Your task to perform on an android device: toggle notification dots Image 0: 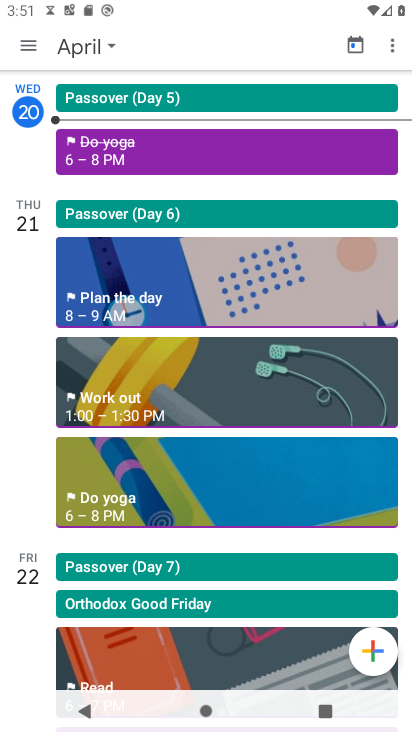
Step 0: press home button
Your task to perform on an android device: toggle notification dots Image 1: 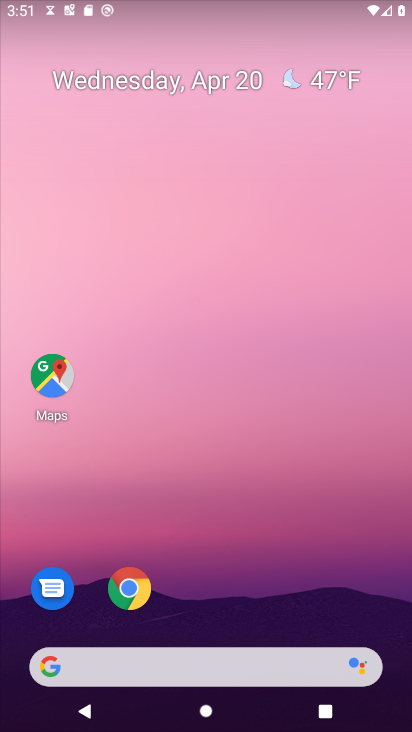
Step 1: drag from (300, 537) to (306, 18)
Your task to perform on an android device: toggle notification dots Image 2: 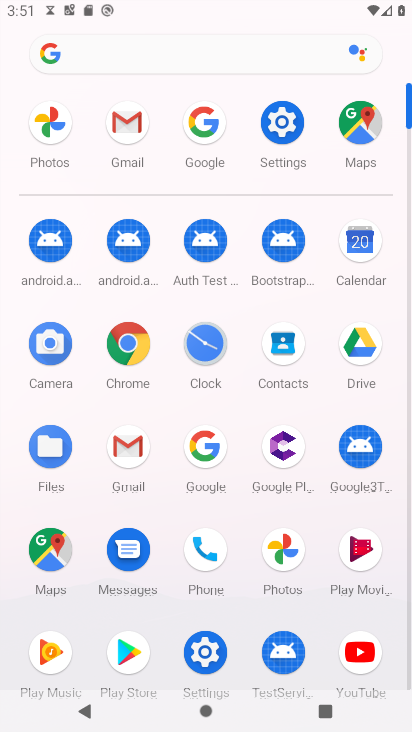
Step 2: click (275, 130)
Your task to perform on an android device: toggle notification dots Image 3: 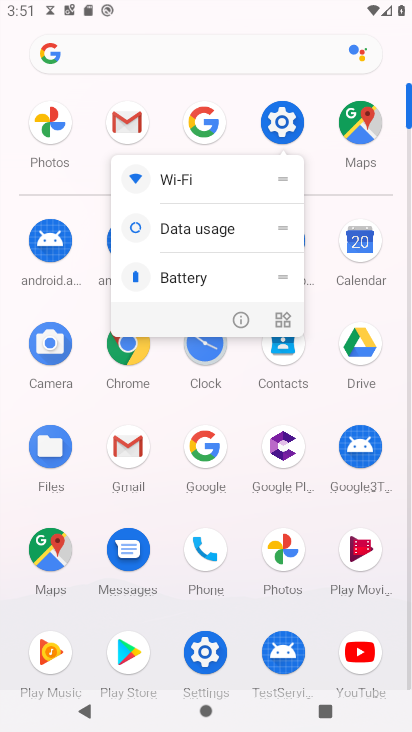
Step 3: click (275, 130)
Your task to perform on an android device: toggle notification dots Image 4: 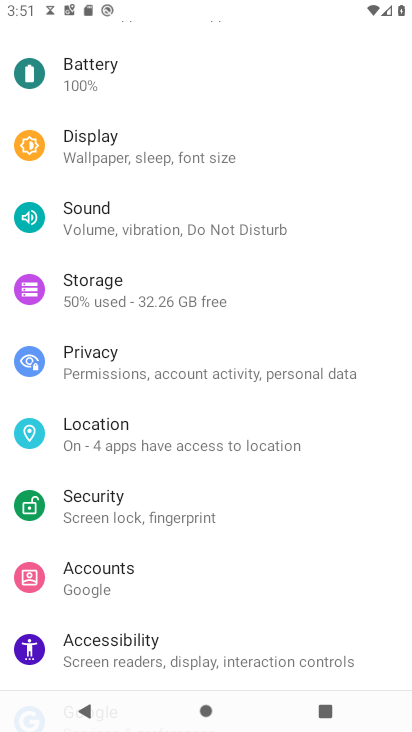
Step 4: drag from (132, 201) to (154, 291)
Your task to perform on an android device: toggle notification dots Image 5: 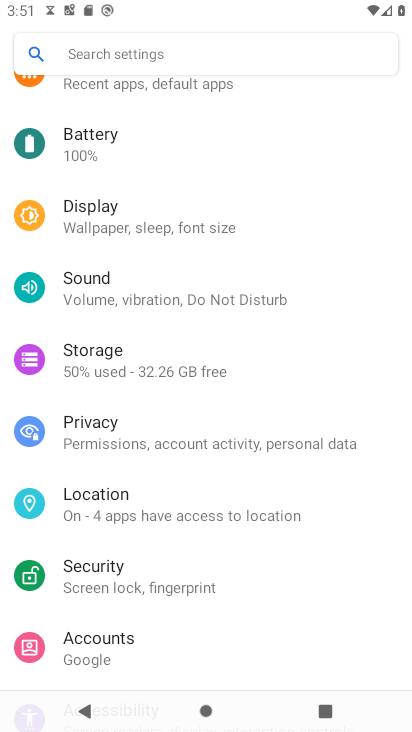
Step 5: drag from (136, 215) to (170, 332)
Your task to perform on an android device: toggle notification dots Image 6: 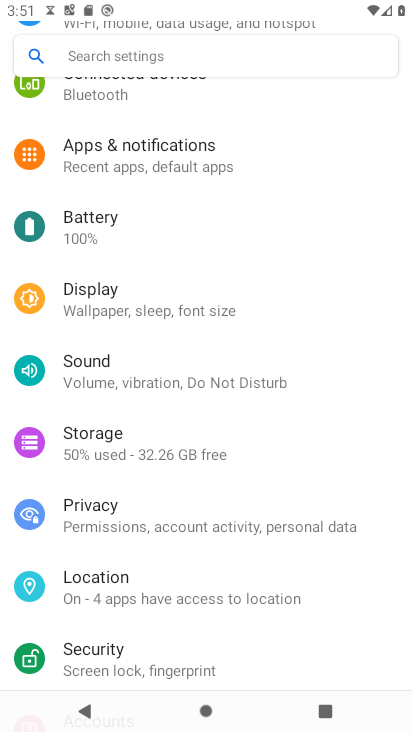
Step 6: click (163, 165)
Your task to perform on an android device: toggle notification dots Image 7: 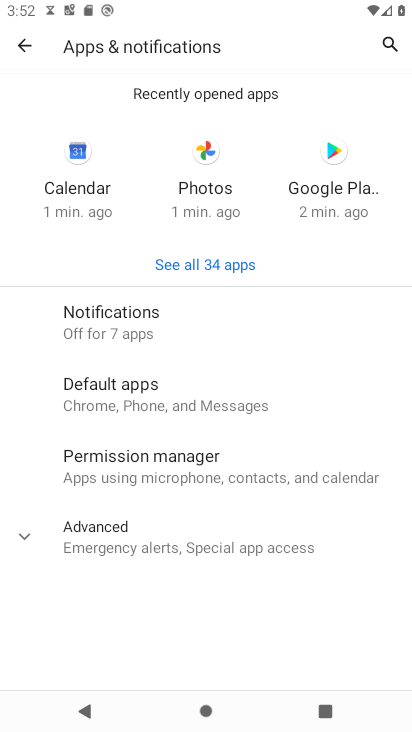
Step 7: click (165, 324)
Your task to perform on an android device: toggle notification dots Image 8: 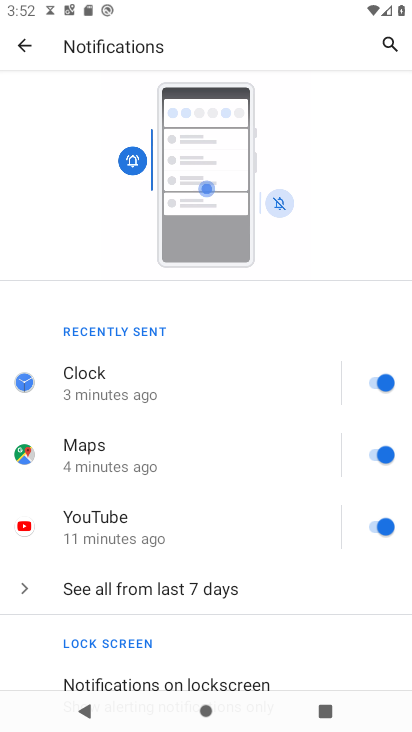
Step 8: drag from (209, 576) to (254, 334)
Your task to perform on an android device: toggle notification dots Image 9: 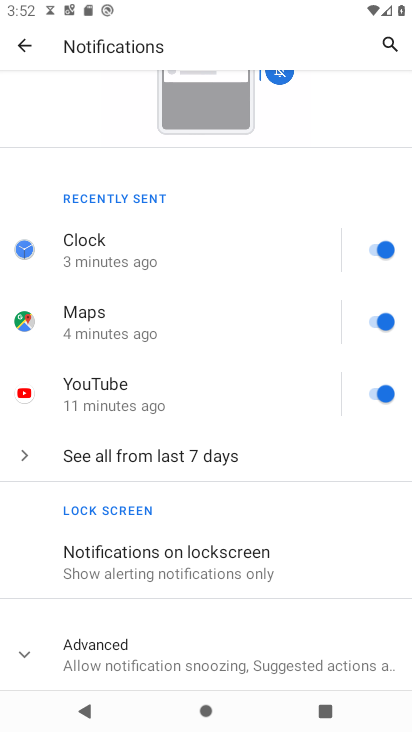
Step 9: drag from (227, 487) to (237, 336)
Your task to perform on an android device: toggle notification dots Image 10: 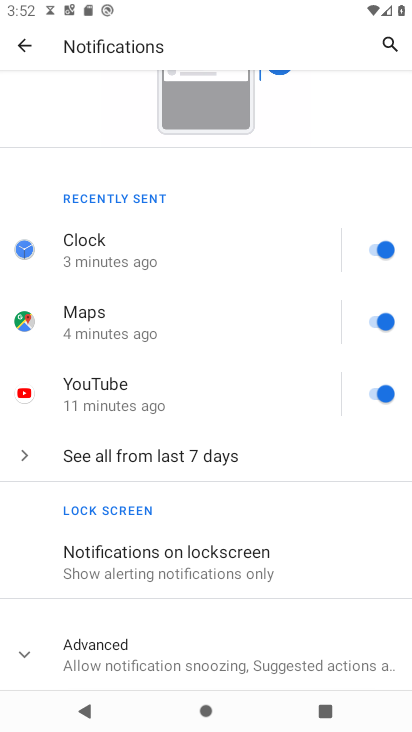
Step 10: click (148, 655)
Your task to perform on an android device: toggle notification dots Image 11: 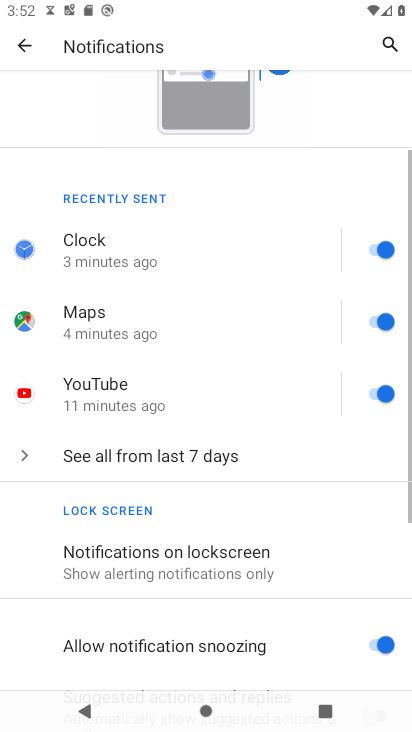
Step 11: drag from (146, 648) to (162, 517)
Your task to perform on an android device: toggle notification dots Image 12: 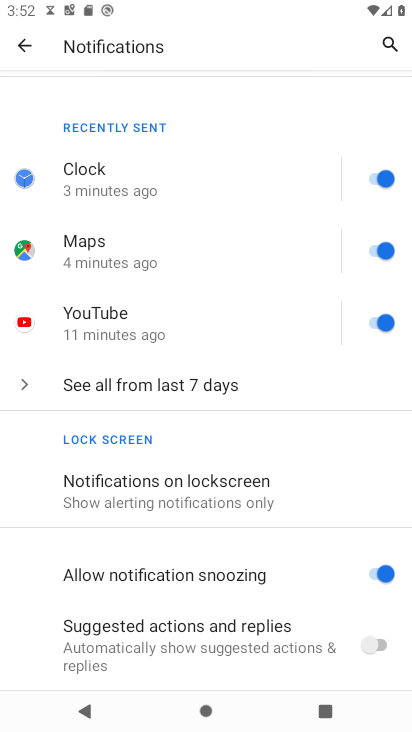
Step 12: drag from (154, 569) to (191, 430)
Your task to perform on an android device: toggle notification dots Image 13: 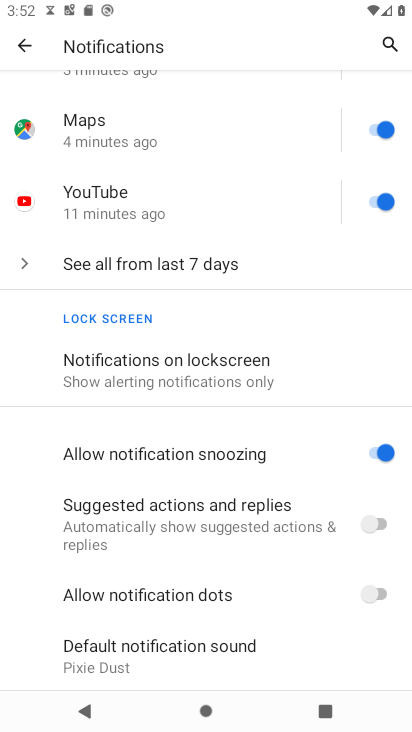
Step 13: click (351, 587)
Your task to perform on an android device: toggle notification dots Image 14: 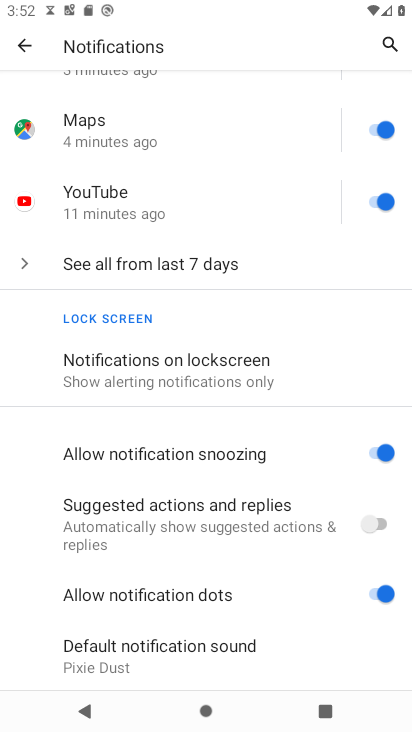
Step 14: task complete